Your task to perform on an android device: Show me productivity apps on the Play Store Image 0: 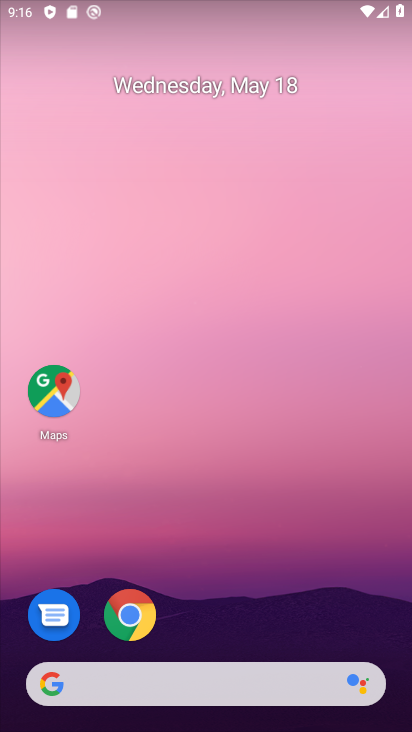
Step 0: drag from (283, 590) to (307, 13)
Your task to perform on an android device: Show me productivity apps on the Play Store Image 1: 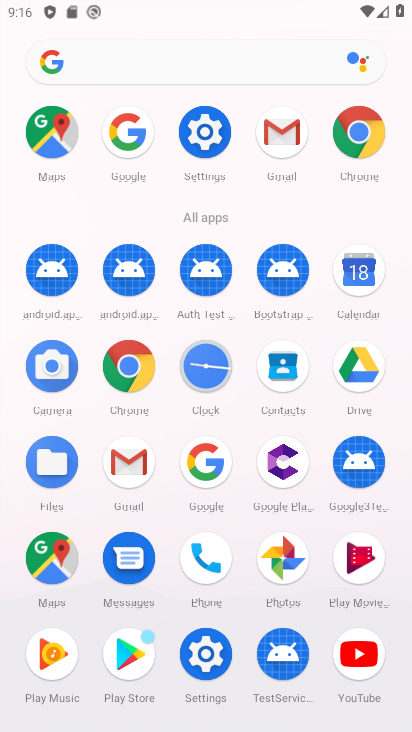
Step 1: click (126, 649)
Your task to perform on an android device: Show me productivity apps on the Play Store Image 2: 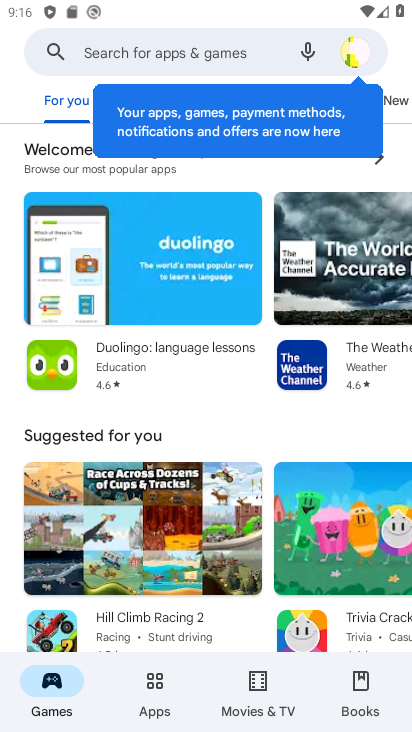
Step 2: click (156, 703)
Your task to perform on an android device: Show me productivity apps on the Play Store Image 3: 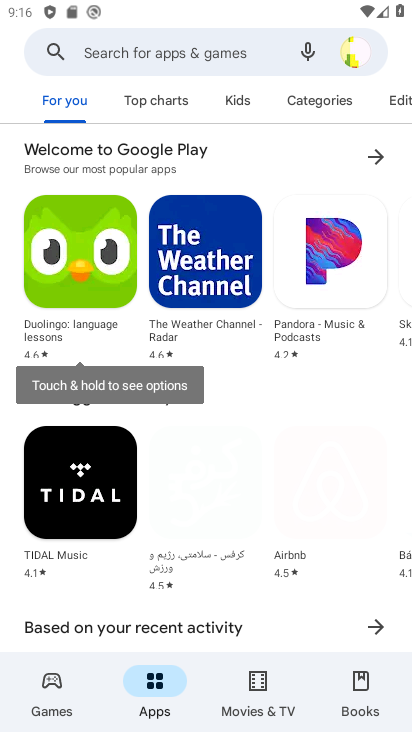
Step 3: click (324, 105)
Your task to perform on an android device: Show me productivity apps on the Play Store Image 4: 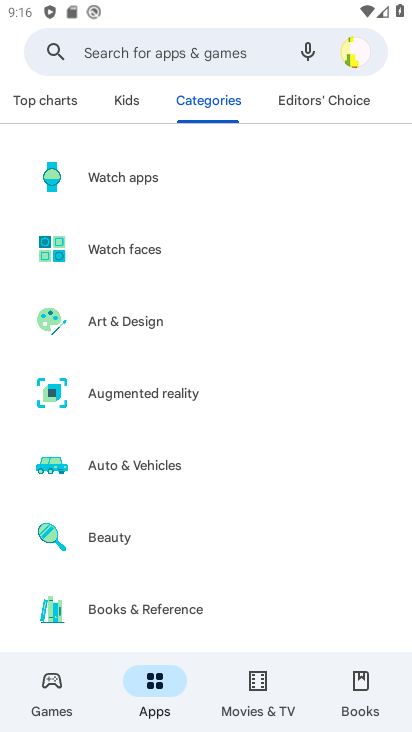
Step 4: drag from (246, 516) to (311, 1)
Your task to perform on an android device: Show me productivity apps on the Play Store Image 5: 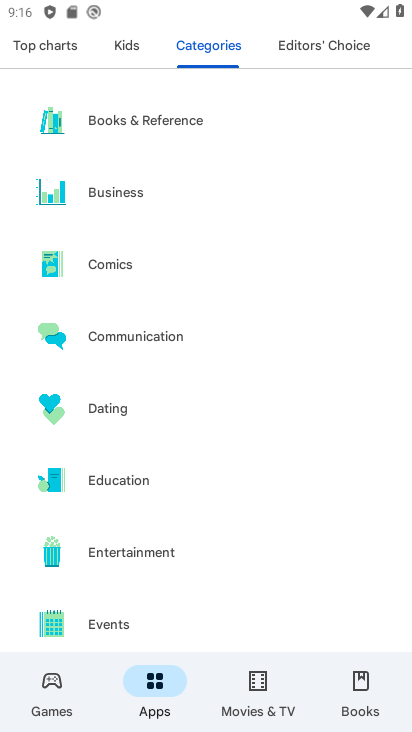
Step 5: drag from (205, 564) to (326, 12)
Your task to perform on an android device: Show me productivity apps on the Play Store Image 6: 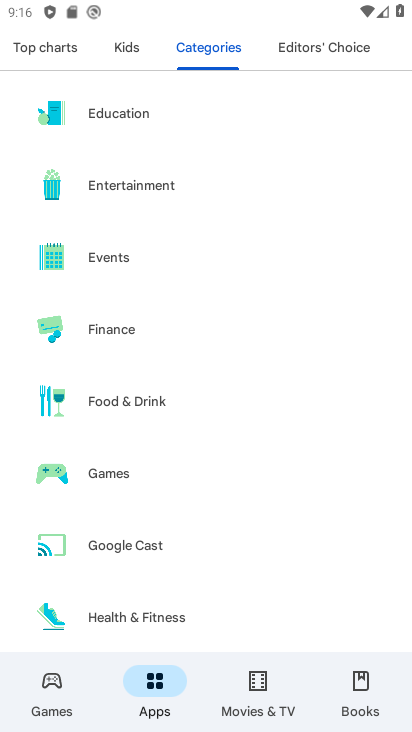
Step 6: drag from (212, 506) to (279, 0)
Your task to perform on an android device: Show me productivity apps on the Play Store Image 7: 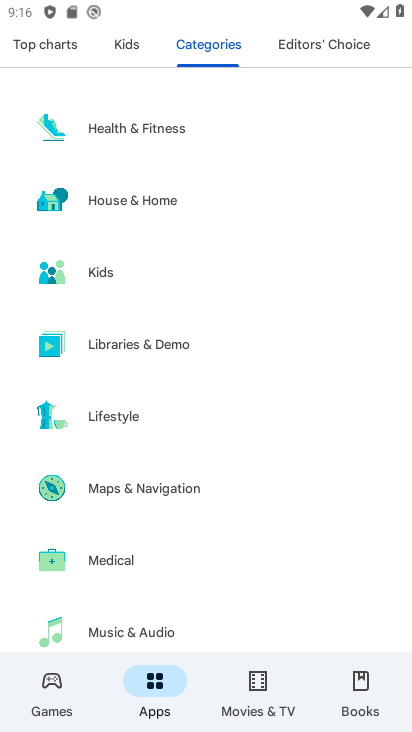
Step 7: drag from (211, 590) to (250, 54)
Your task to perform on an android device: Show me productivity apps on the Play Store Image 8: 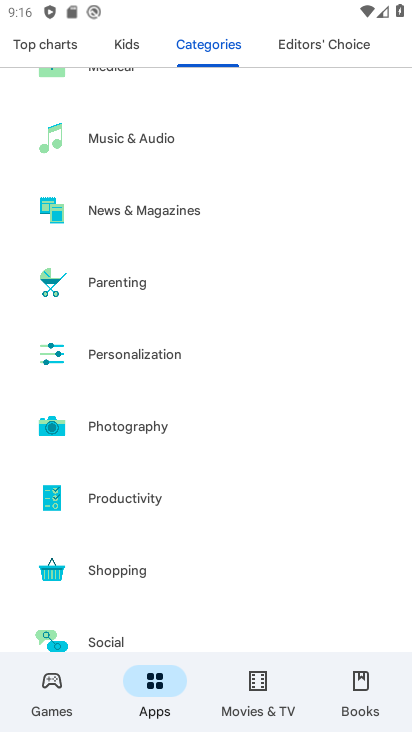
Step 8: click (138, 505)
Your task to perform on an android device: Show me productivity apps on the Play Store Image 9: 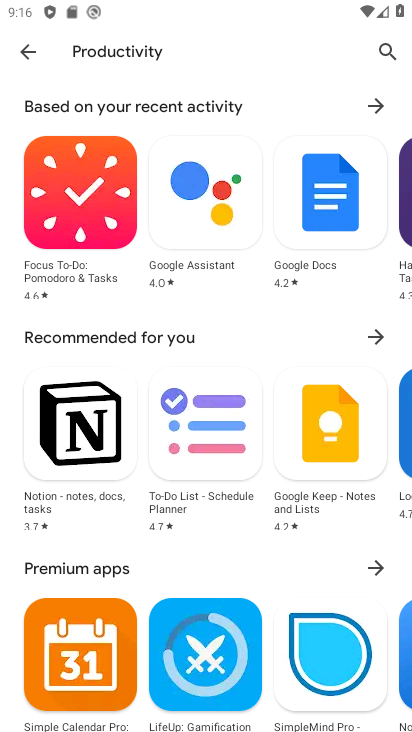
Step 9: task complete